Your task to perform on an android device: Go to Reddit.com Image 0: 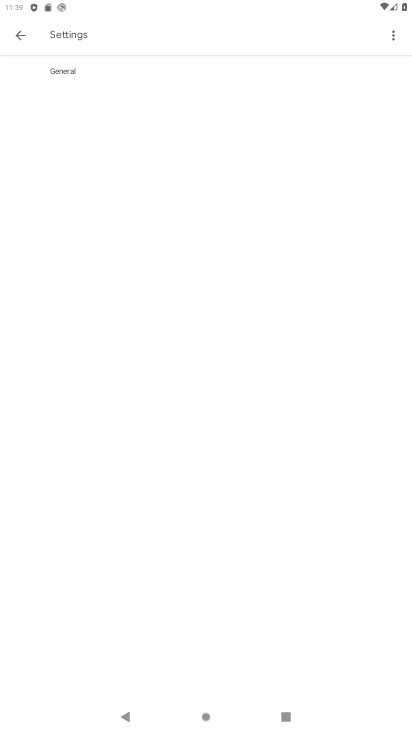
Step 0: press home button
Your task to perform on an android device: Go to Reddit.com Image 1: 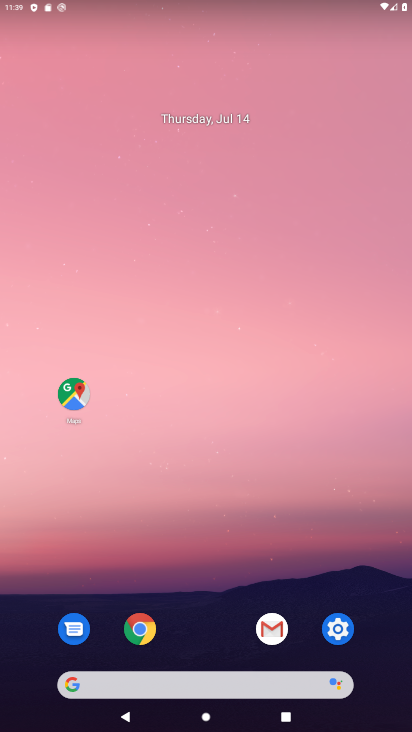
Step 1: click (155, 640)
Your task to perform on an android device: Go to Reddit.com Image 2: 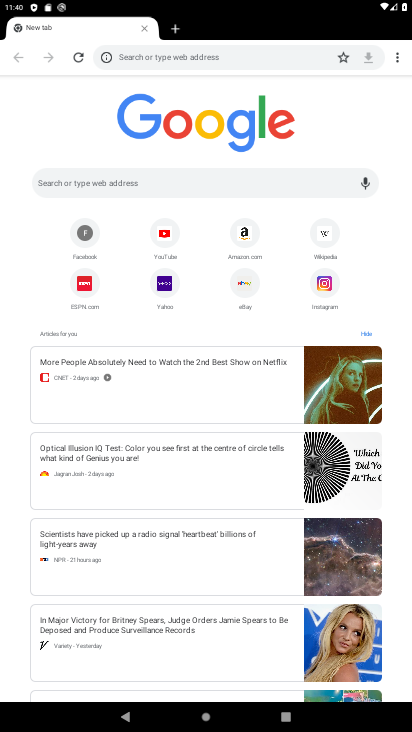
Step 2: click (140, 185)
Your task to perform on an android device: Go to Reddit.com Image 3: 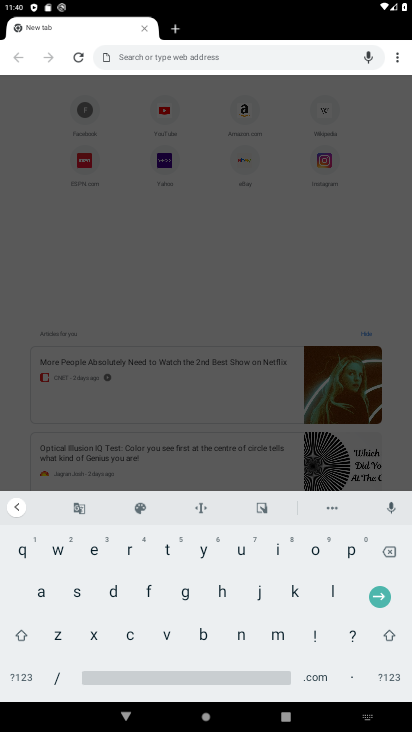
Step 3: click (126, 548)
Your task to perform on an android device: Go to Reddit.com Image 4: 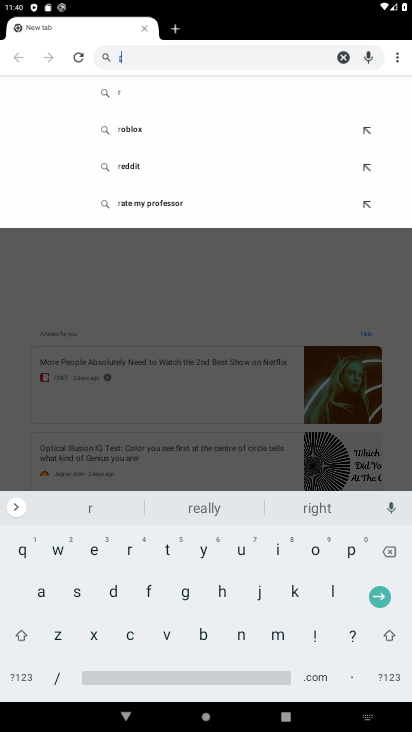
Step 4: click (92, 553)
Your task to perform on an android device: Go to Reddit.com Image 5: 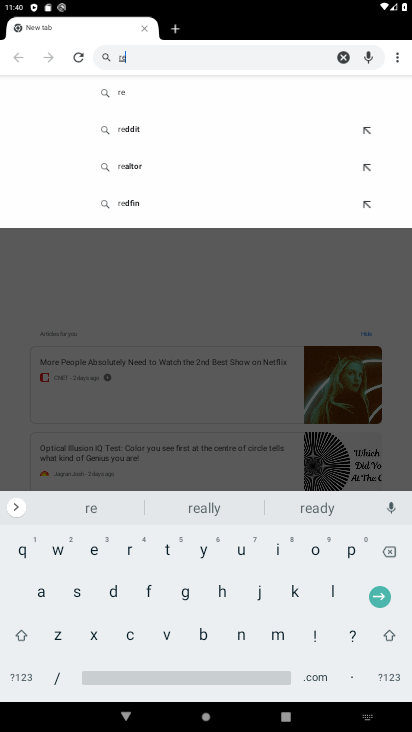
Step 5: click (387, 556)
Your task to perform on an android device: Go to Reddit.com Image 6: 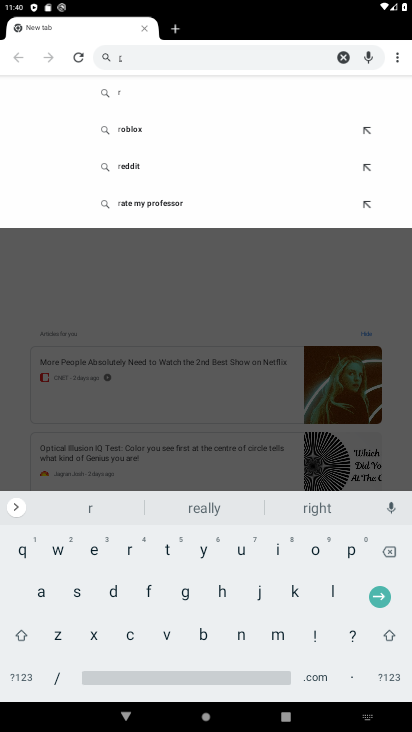
Step 6: click (92, 551)
Your task to perform on an android device: Go to Reddit.com Image 7: 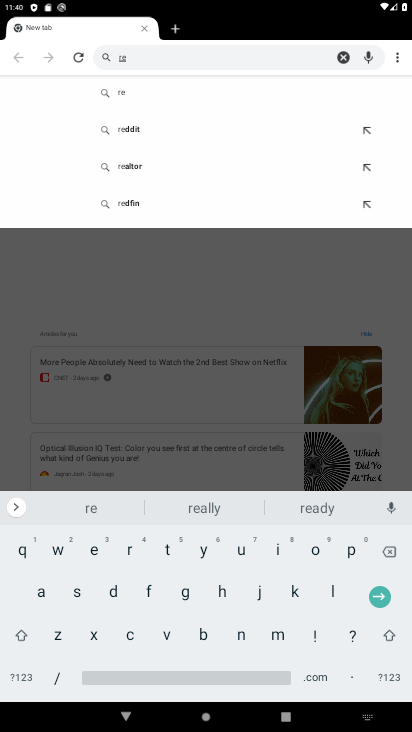
Step 7: click (114, 587)
Your task to perform on an android device: Go to Reddit.com Image 8: 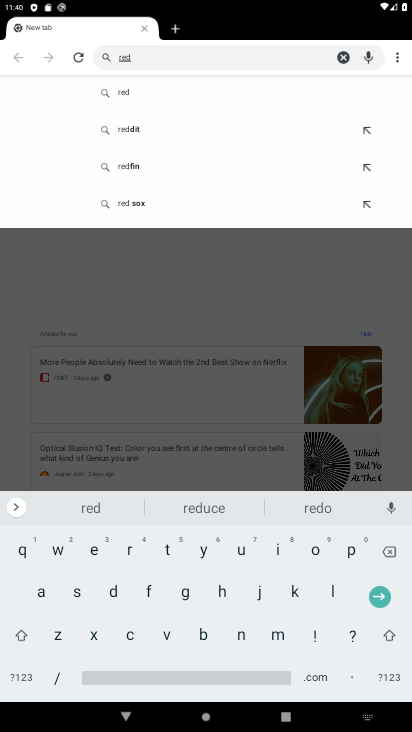
Step 8: click (114, 587)
Your task to perform on an android device: Go to Reddit.com Image 9: 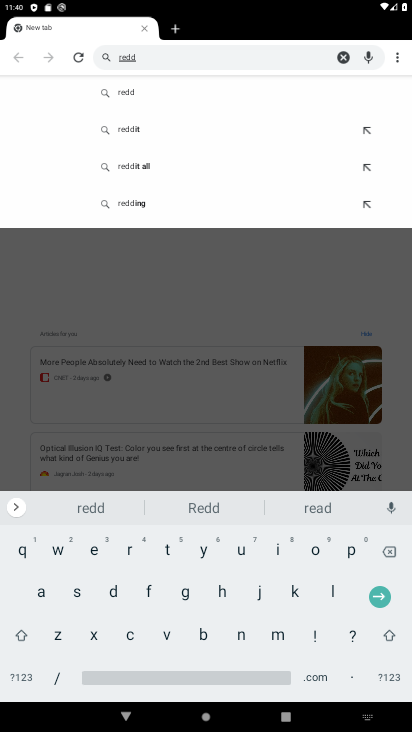
Step 9: click (138, 125)
Your task to perform on an android device: Go to Reddit.com Image 10: 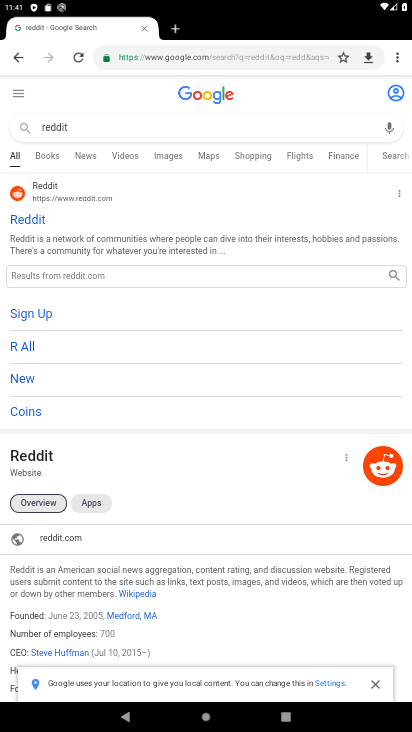
Step 10: click (29, 215)
Your task to perform on an android device: Go to Reddit.com Image 11: 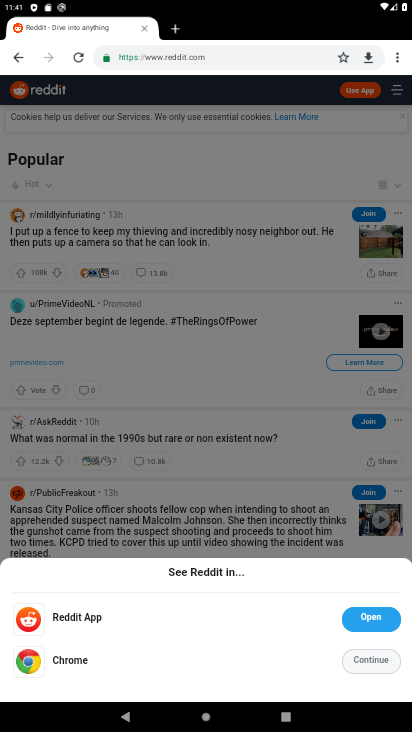
Step 11: click (368, 671)
Your task to perform on an android device: Go to Reddit.com Image 12: 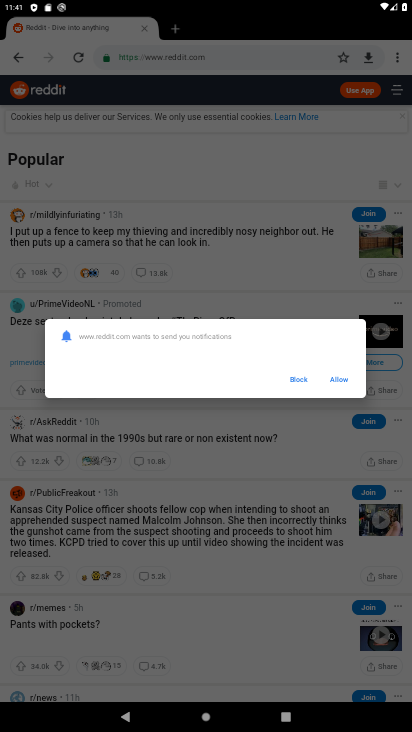
Step 12: task complete